Your task to perform on an android device: delete a single message in the gmail app Image 0: 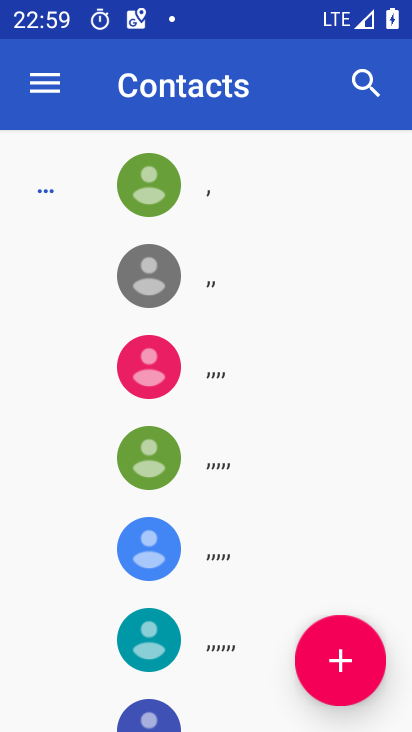
Step 0: press home button
Your task to perform on an android device: delete a single message in the gmail app Image 1: 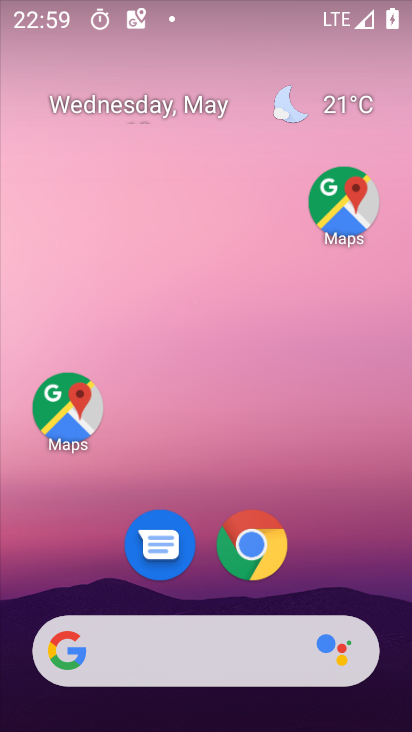
Step 1: drag from (317, 586) to (369, 47)
Your task to perform on an android device: delete a single message in the gmail app Image 2: 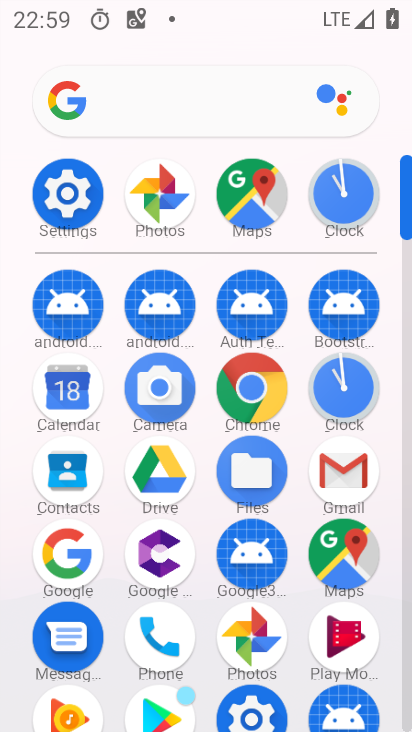
Step 2: click (336, 483)
Your task to perform on an android device: delete a single message in the gmail app Image 3: 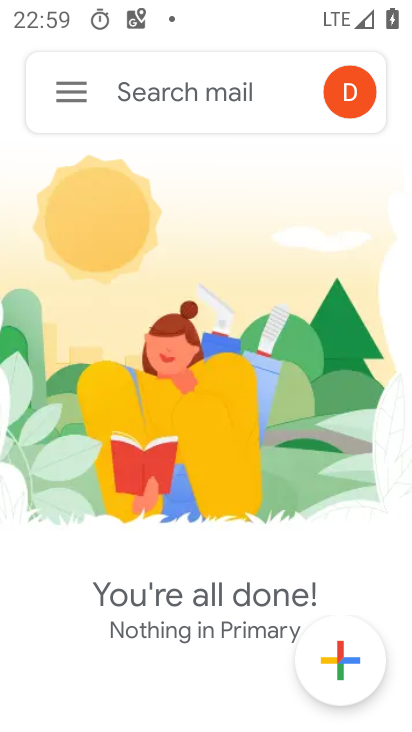
Step 3: click (68, 90)
Your task to perform on an android device: delete a single message in the gmail app Image 4: 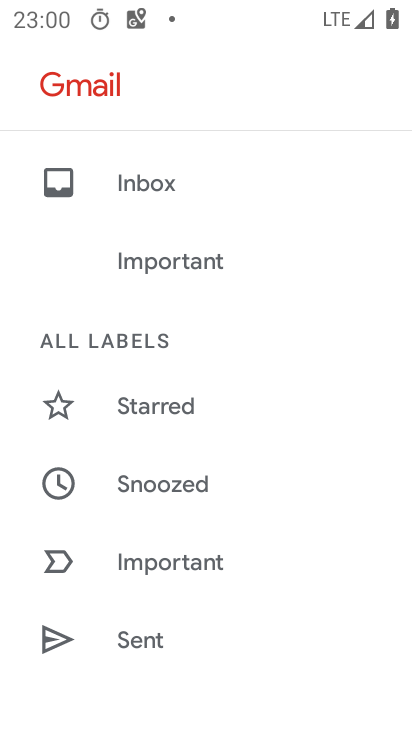
Step 4: drag from (173, 648) to (190, 332)
Your task to perform on an android device: delete a single message in the gmail app Image 5: 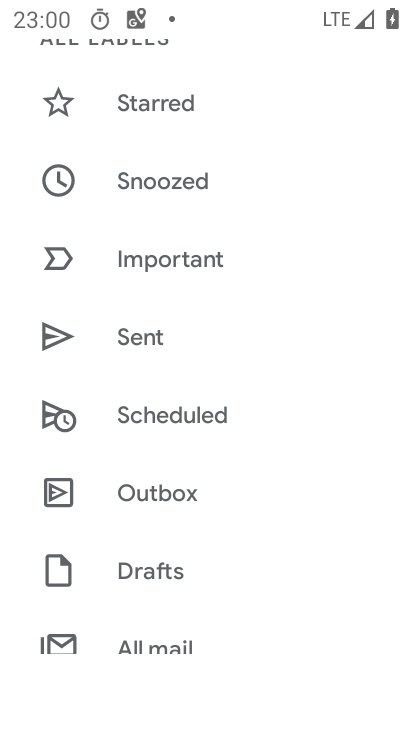
Step 5: click (197, 632)
Your task to perform on an android device: delete a single message in the gmail app Image 6: 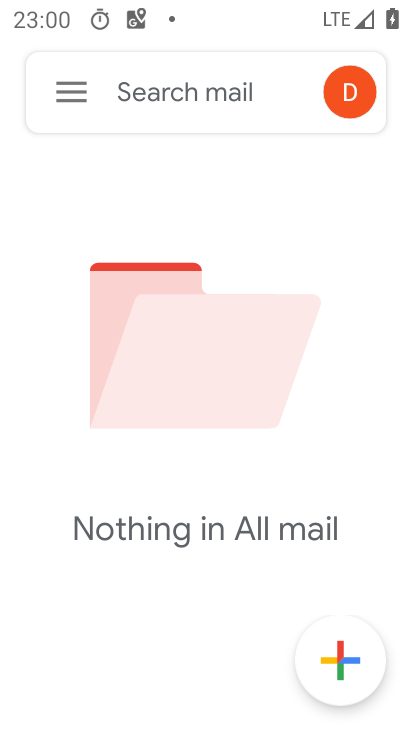
Step 6: task complete